Your task to perform on an android device: Open Google Image 0: 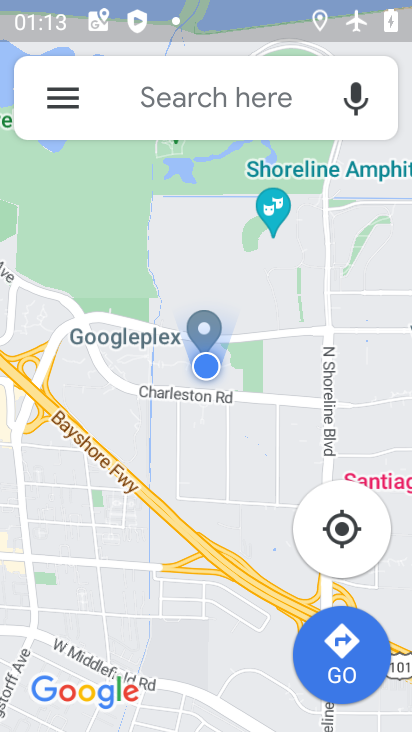
Step 0: press home button
Your task to perform on an android device: Open Google Image 1: 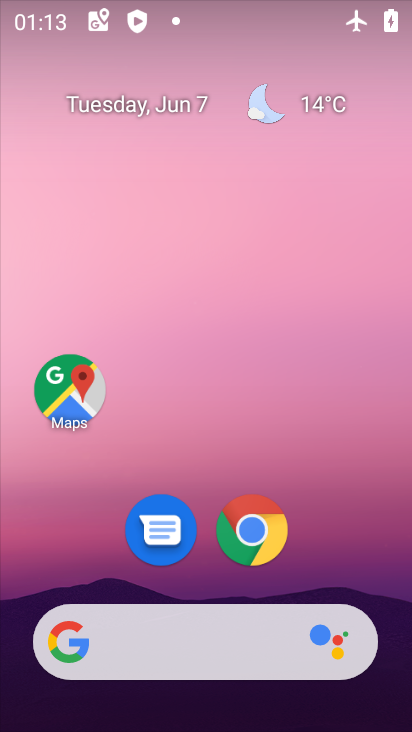
Step 1: drag from (228, 565) to (228, 317)
Your task to perform on an android device: Open Google Image 2: 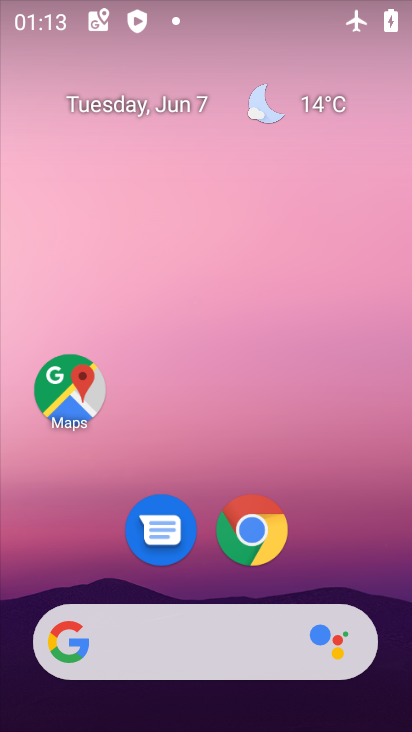
Step 2: drag from (278, 556) to (267, 225)
Your task to perform on an android device: Open Google Image 3: 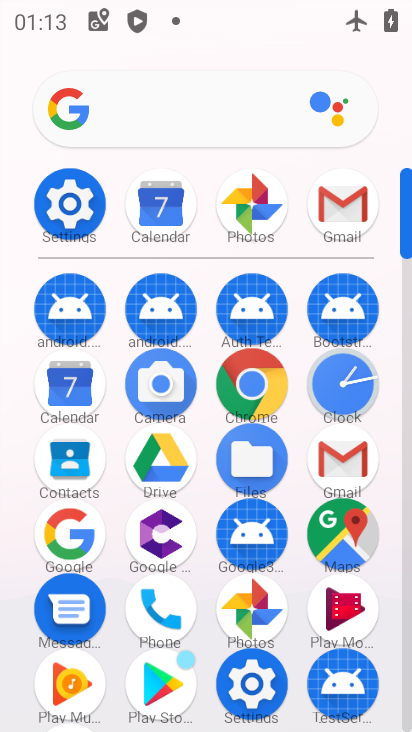
Step 3: click (47, 526)
Your task to perform on an android device: Open Google Image 4: 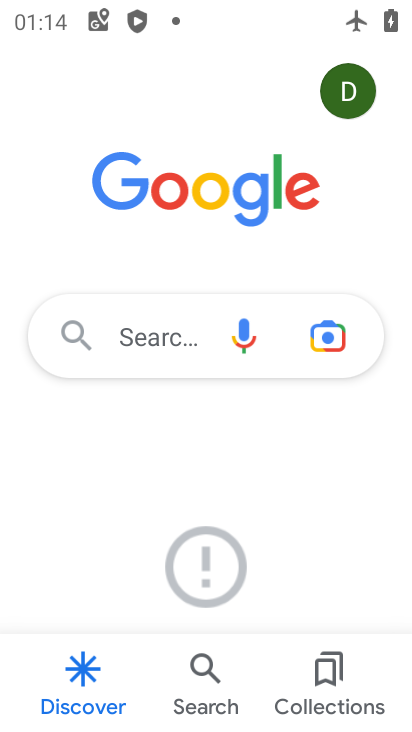
Step 4: task complete